Your task to perform on an android device: Clear the shopping cart on newegg. Add "razer kraken" to the cart on newegg Image 0: 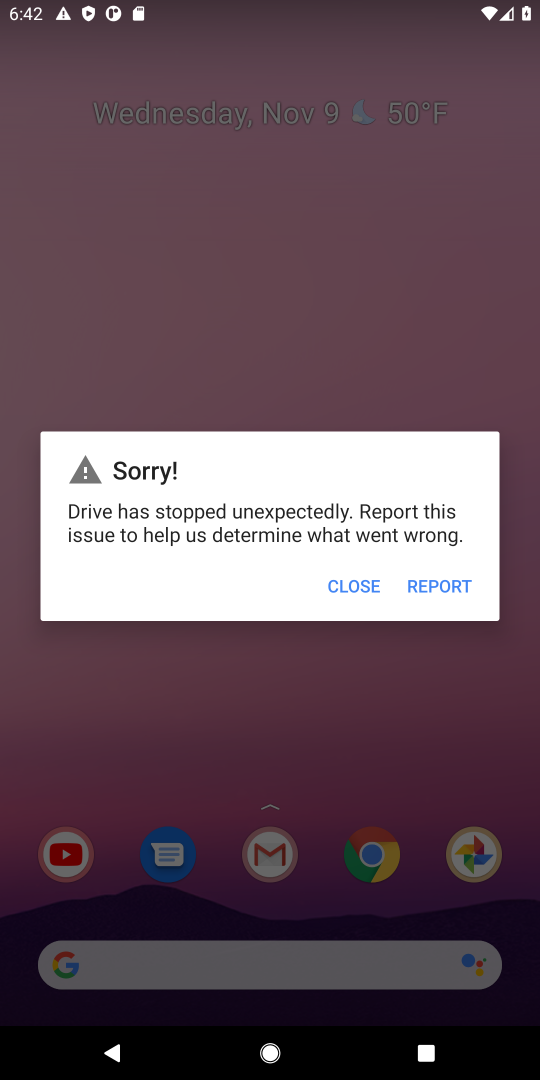
Step 0: press home button
Your task to perform on an android device: Clear the shopping cart on newegg. Add "razer kraken" to the cart on newegg Image 1: 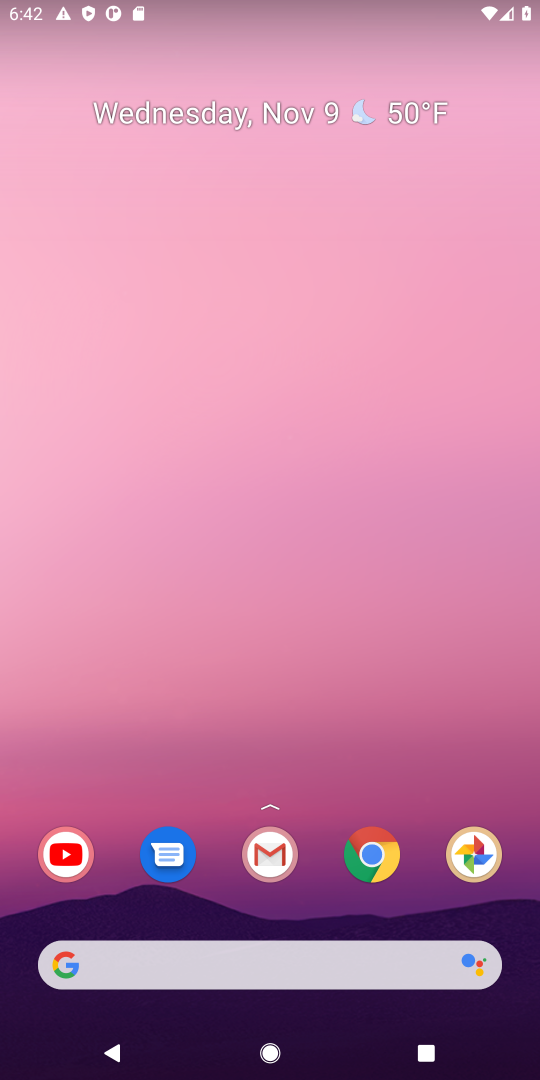
Step 1: click (231, 960)
Your task to perform on an android device: Clear the shopping cart on newegg. Add "razer kraken" to the cart on newegg Image 2: 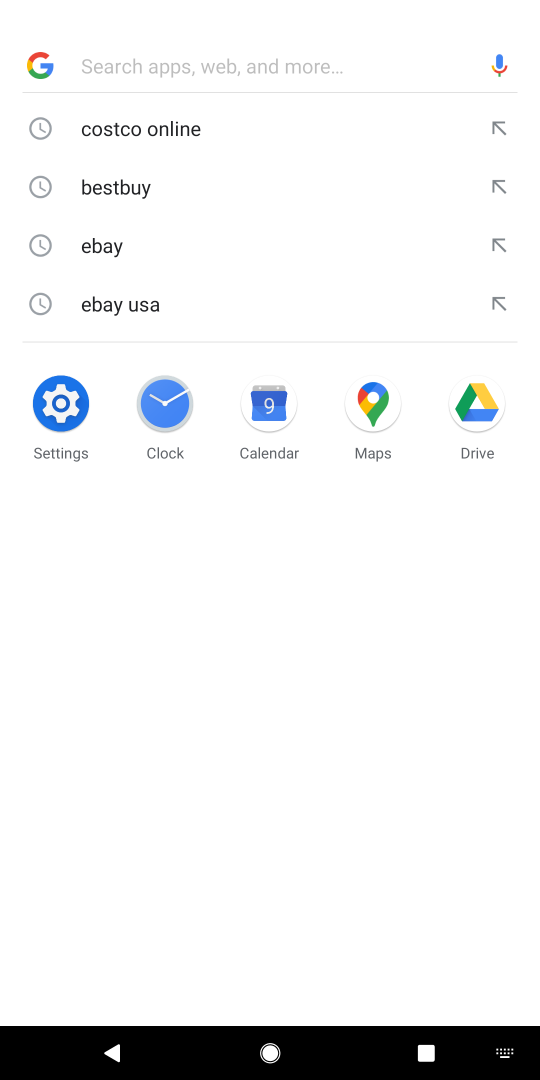
Step 2: type "newegg"
Your task to perform on an android device: Clear the shopping cart on newegg. Add "razer kraken" to the cart on newegg Image 3: 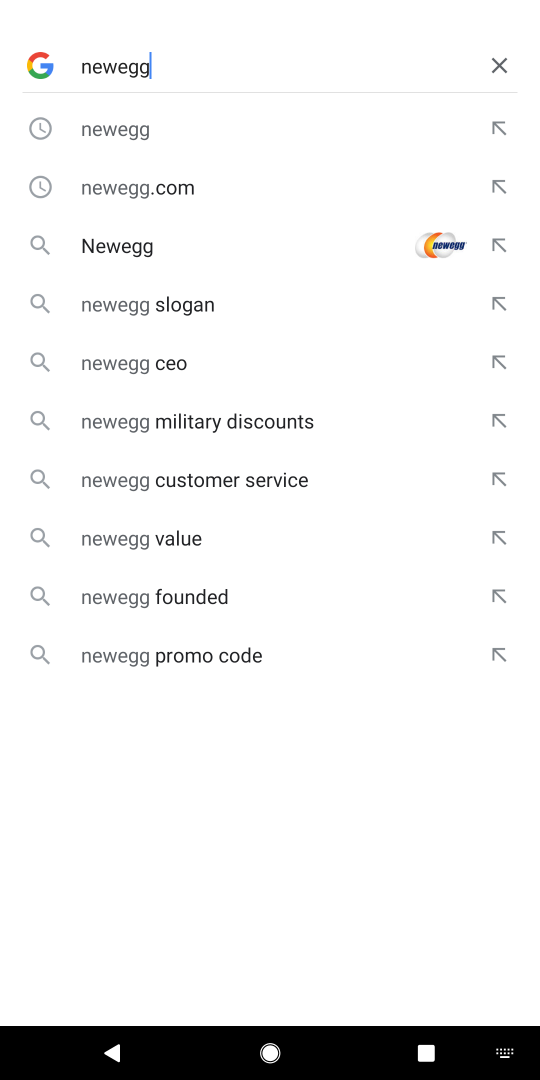
Step 3: click (141, 131)
Your task to perform on an android device: Clear the shopping cart on newegg. Add "razer kraken" to the cart on newegg Image 4: 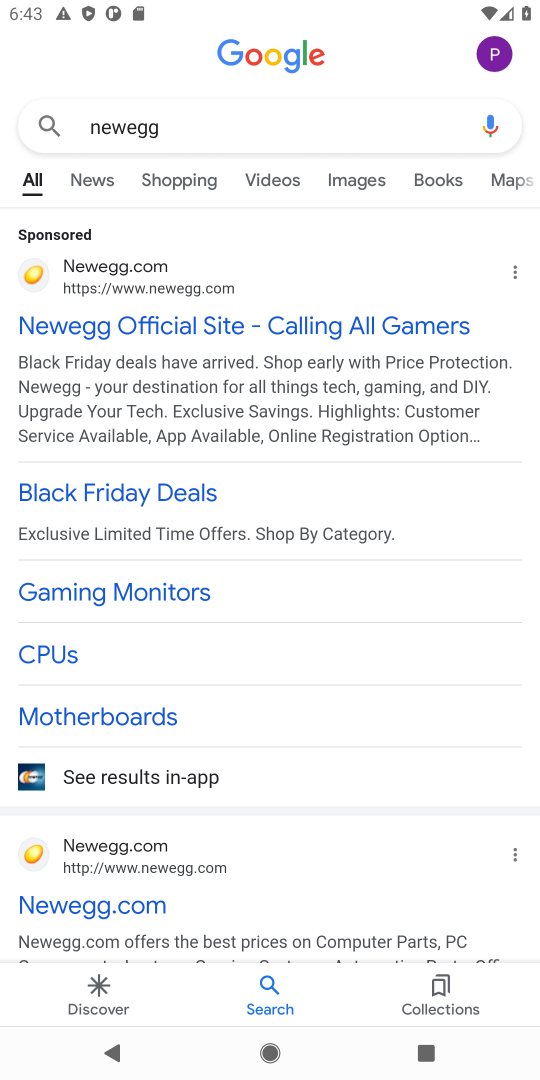
Step 4: click (137, 340)
Your task to perform on an android device: Clear the shopping cart on newegg. Add "razer kraken" to the cart on newegg Image 5: 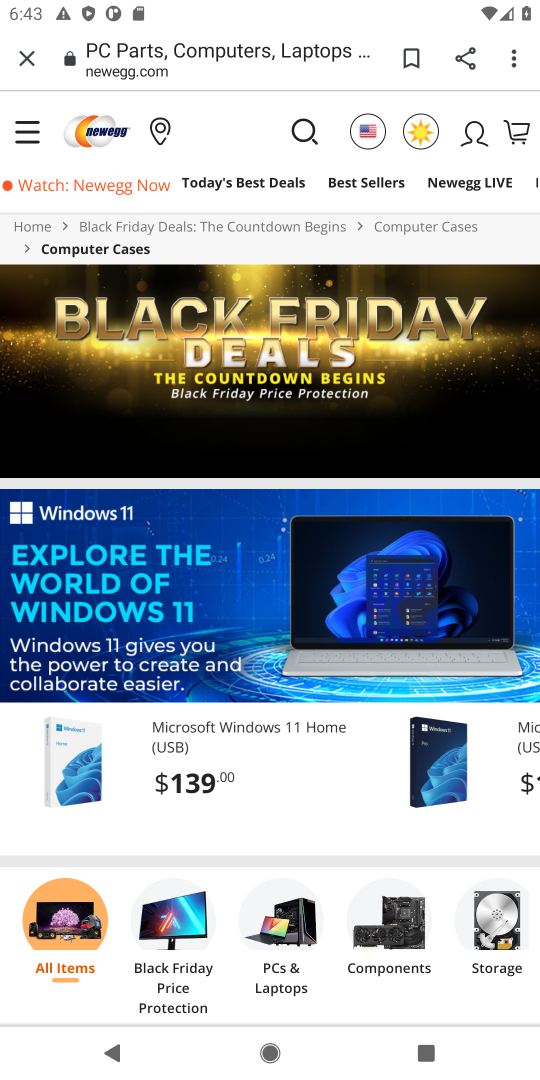
Step 5: task complete